Your task to perform on an android device: turn on notifications settings in the gmail app Image 0: 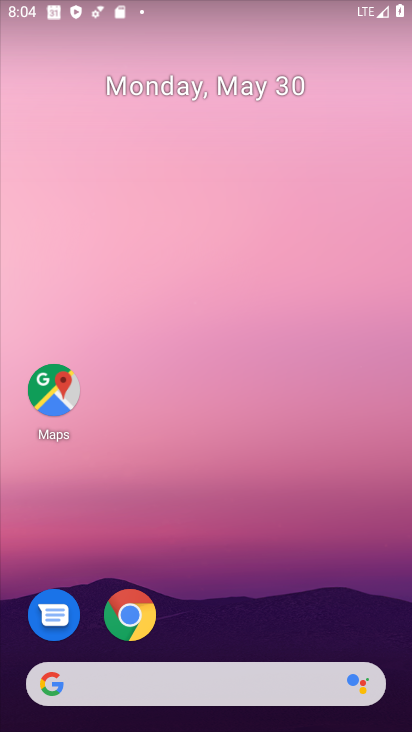
Step 0: drag from (169, 722) to (174, 159)
Your task to perform on an android device: turn on notifications settings in the gmail app Image 1: 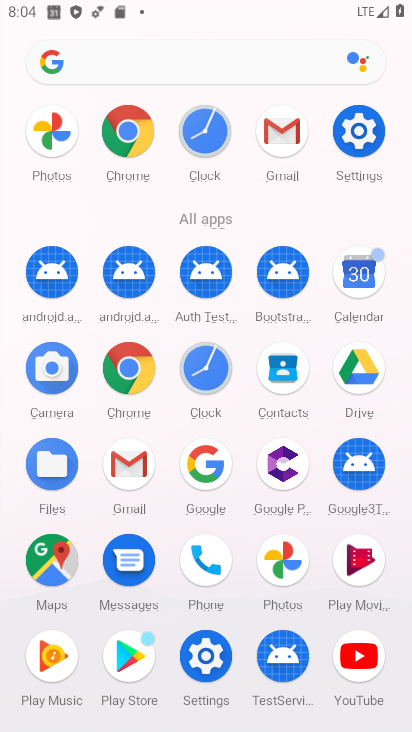
Step 1: click (118, 465)
Your task to perform on an android device: turn on notifications settings in the gmail app Image 2: 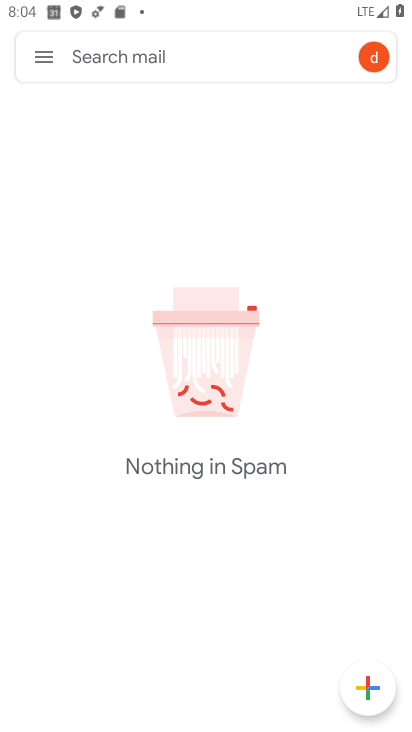
Step 2: click (49, 63)
Your task to perform on an android device: turn on notifications settings in the gmail app Image 3: 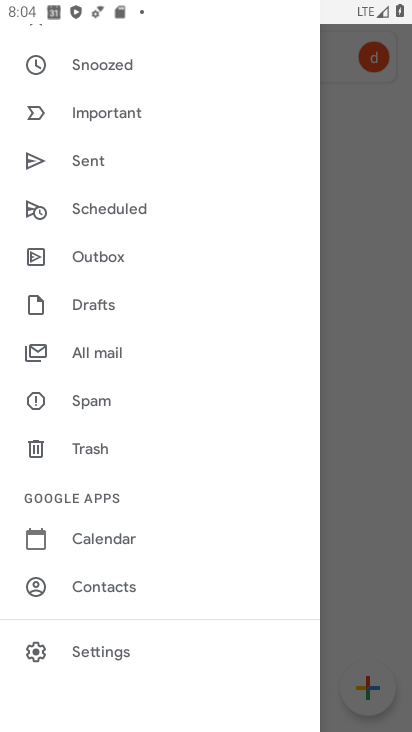
Step 3: click (109, 656)
Your task to perform on an android device: turn on notifications settings in the gmail app Image 4: 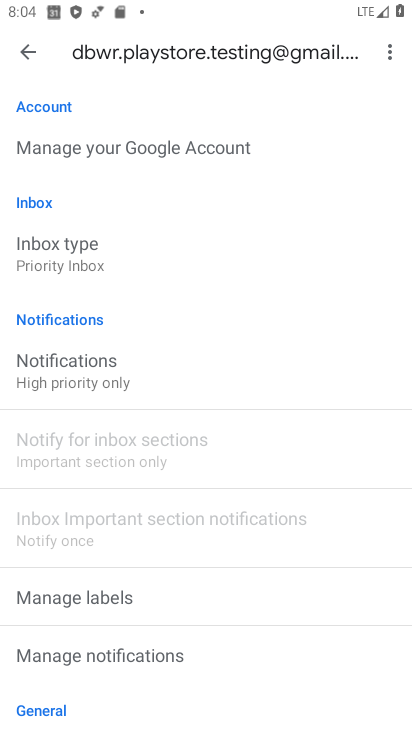
Step 4: click (77, 374)
Your task to perform on an android device: turn on notifications settings in the gmail app Image 5: 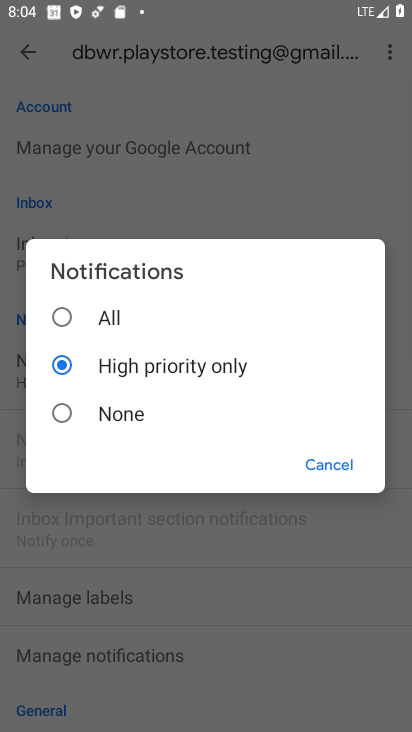
Step 5: click (77, 313)
Your task to perform on an android device: turn on notifications settings in the gmail app Image 6: 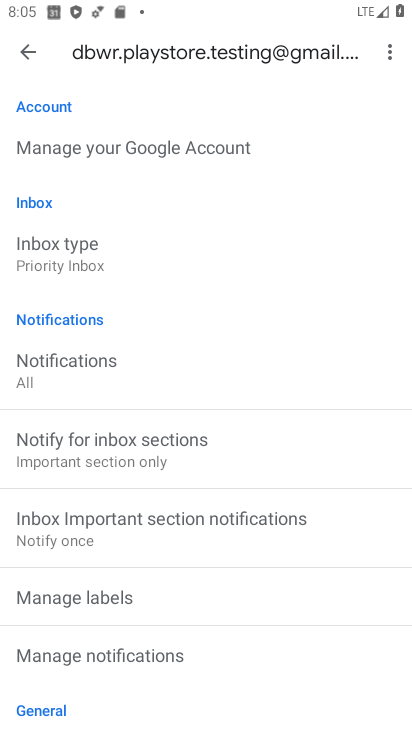
Step 6: task complete